Your task to perform on an android device: change alarm snooze length Image 0: 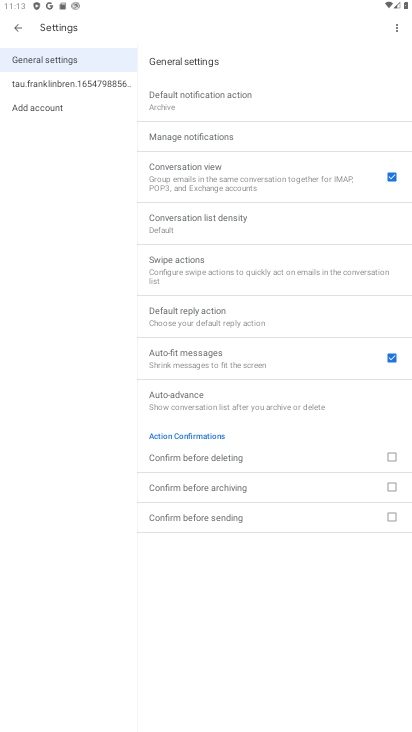
Step 0: press home button
Your task to perform on an android device: change alarm snooze length Image 1: 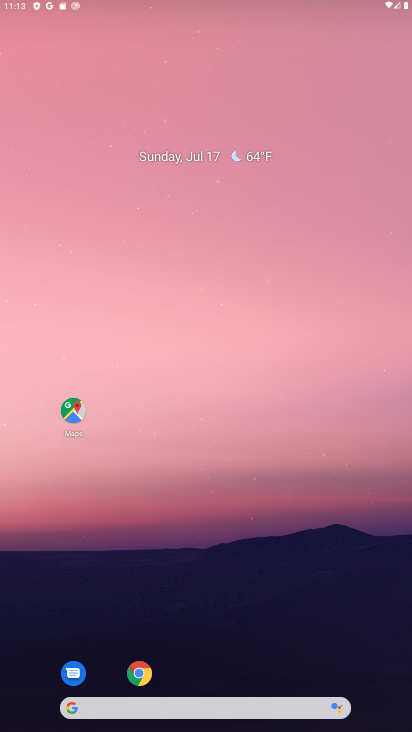
Step 1: drag from (233, 657) to (241, 108)
Your task to perform on an android device: change alarm snooze length Image 2: 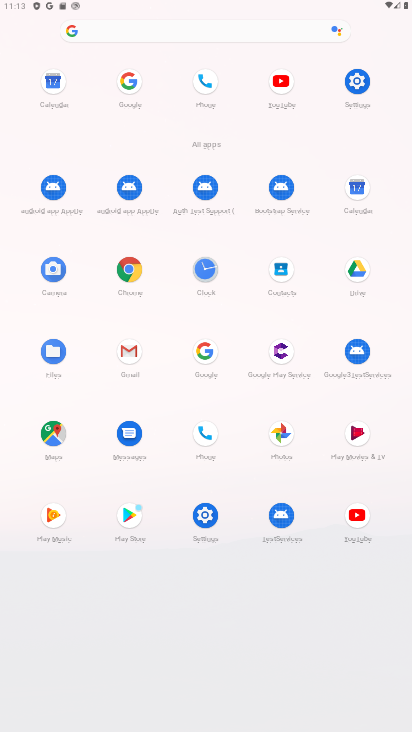
Step 2: click (205, 272)
Your task to perform on an android device: change alarm snooze length Image 3: 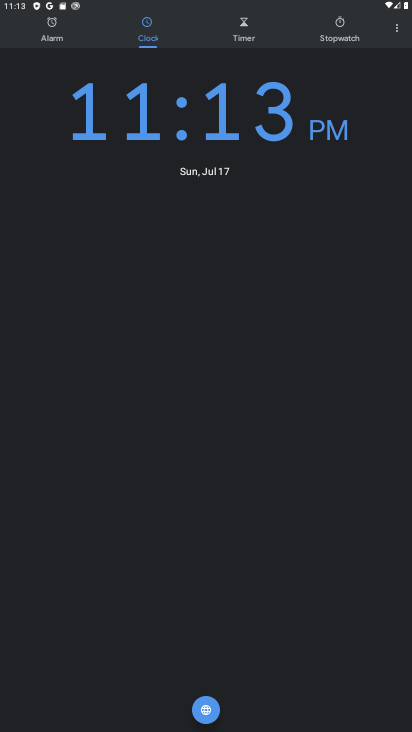
Step 3: click (392, 32)
Your task to perform on an android device: change alarm snooze length Image 4: 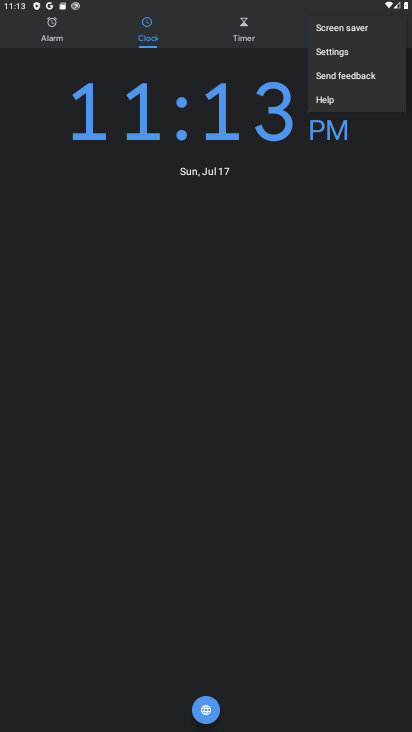
Step 4: click (362, 49)
Your task to perform on an android device: change alarm snooze length Image 5: 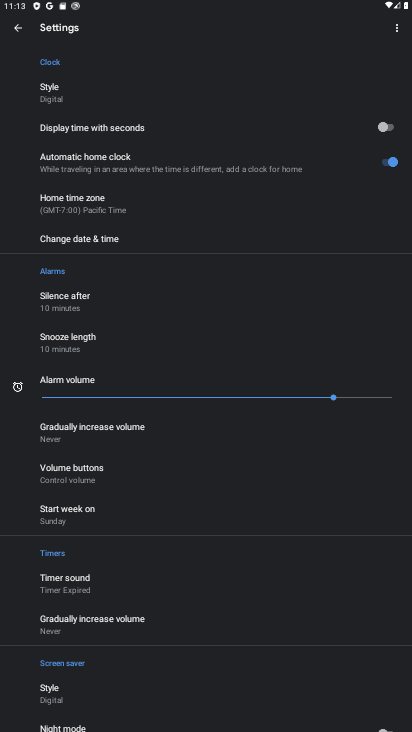
Step 5: click (85, 337)
Your task to perform on an android device: change alarm snooze length Image 6: 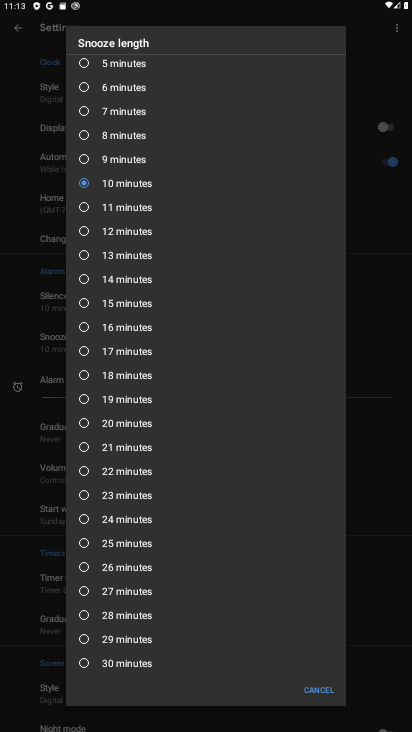
Step 6: click (84, 235)
Your task to perform on an android device: change alarm snooze length Image 7: 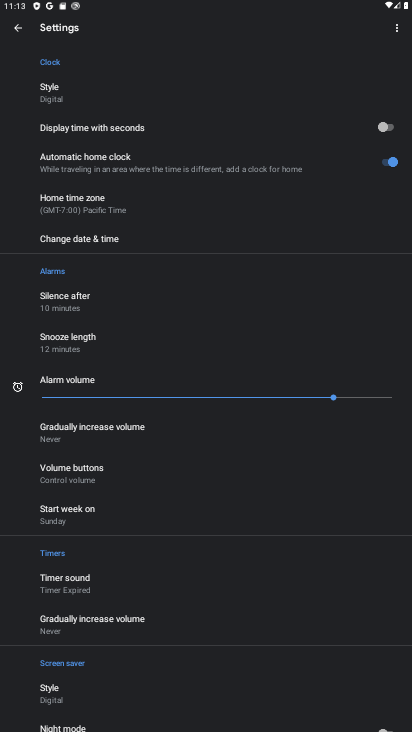
Step 7: task complete